Your task to perform on an android device: turn off improve location accuracy Image 0: 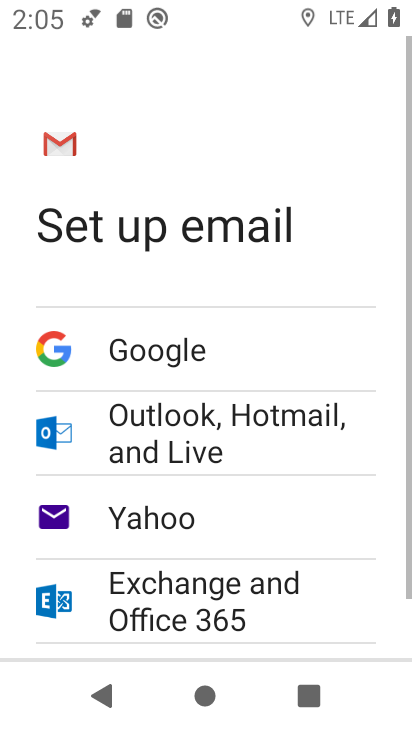
Step 0: press home button
Your task to perform on an android device: turn off improve location accuracy Image 1: 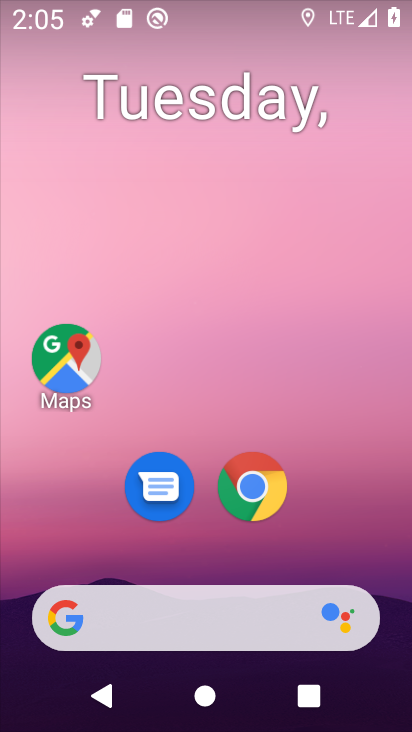
Step 1: drag from (361, 550) to (376, 95)
Your task to perform on an android device: turn off improve location accuracy Image 2: 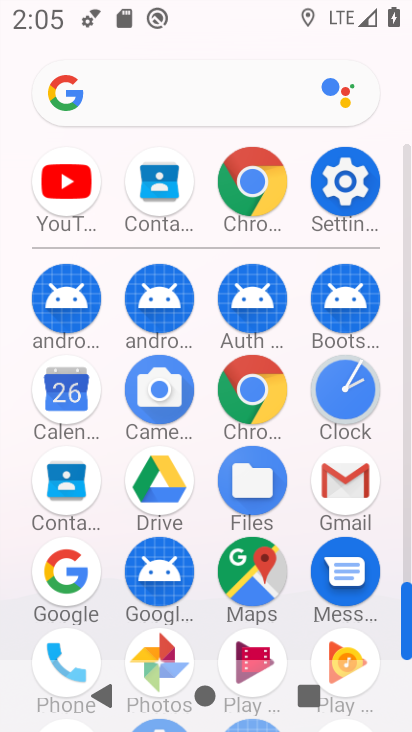
Step 2: click (369, 176)
Your task to perform on an android device: turn off improve location accuracy Image 3: 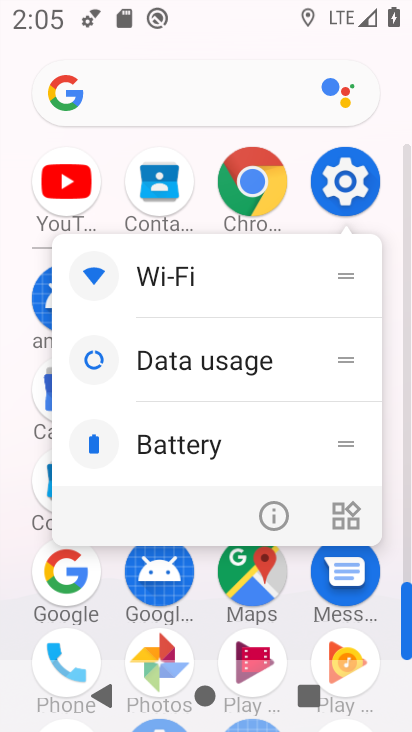
Step 3: click (369, 176)
Your task to perform on an android device: turn off improve location accuracy Image 4: 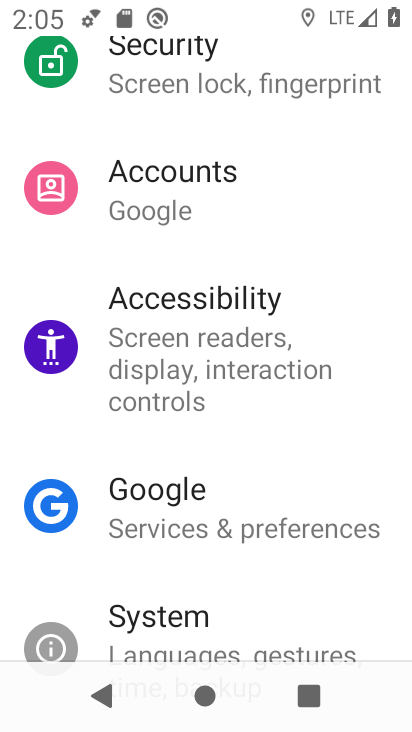
Step 4: drag from (345, 235) to (352, 343)
Your task to perform on an android device: turn off improve location accuracy Image 5: 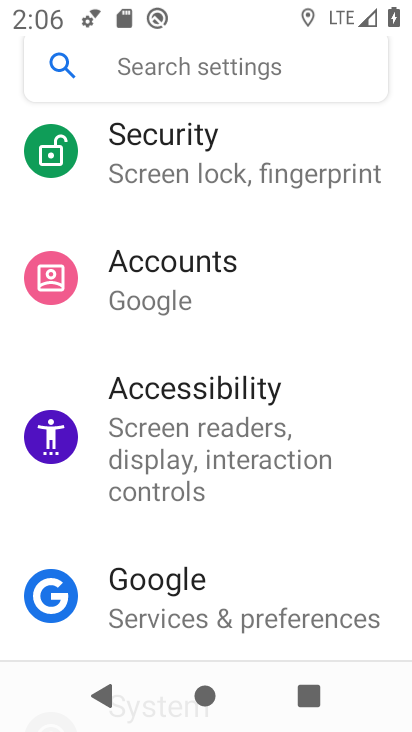
Step 5: drag from (352, 259) to (362, 339)
Your task to perform on an android device: turn off improve location accuracy Image 6: 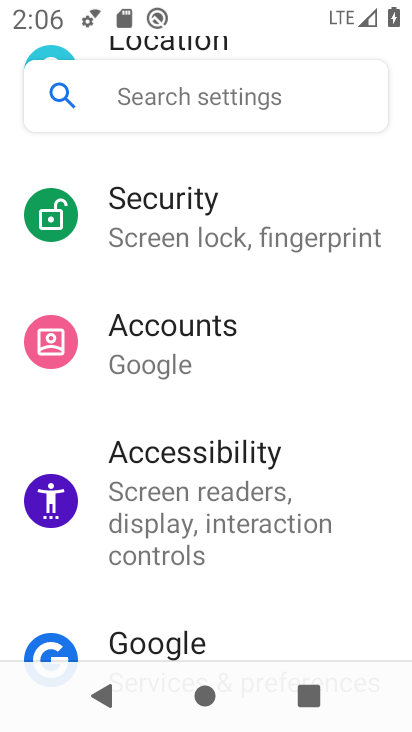
Step 6: drag from (362, 275) to (372, 348)
Your task to perform on an android device: turn off improve location accuracy Image 7: 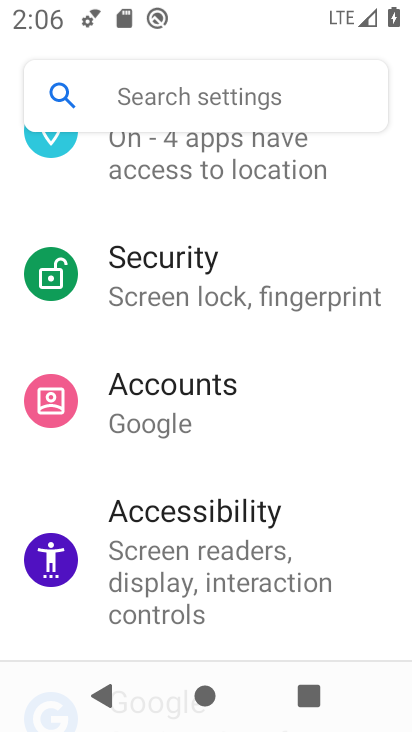
Step 7: drag from (372, 233) to (376, 340)
Your task to perform on an android device: turn off improve location accuracy Image 8: 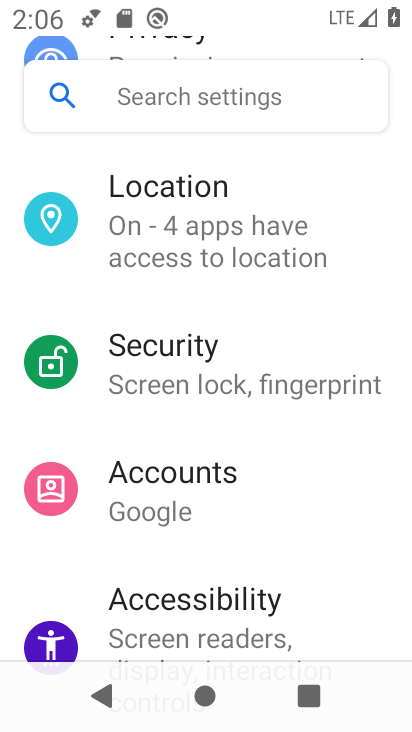
Step 8: drag from (366, 214) to (372, 323)
Your task to perform on an android device: turn off improve location accuracy Image 9: 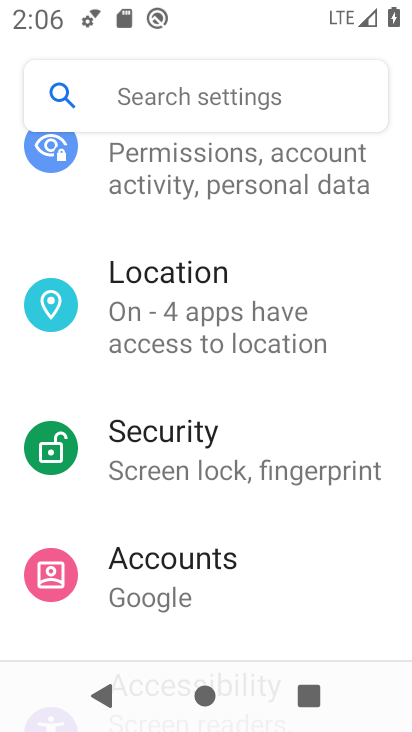
Step 9: drag from (372, 216) to (373, 353)
Your task to perform on an android device: turn off improve location accuracy Image 10: 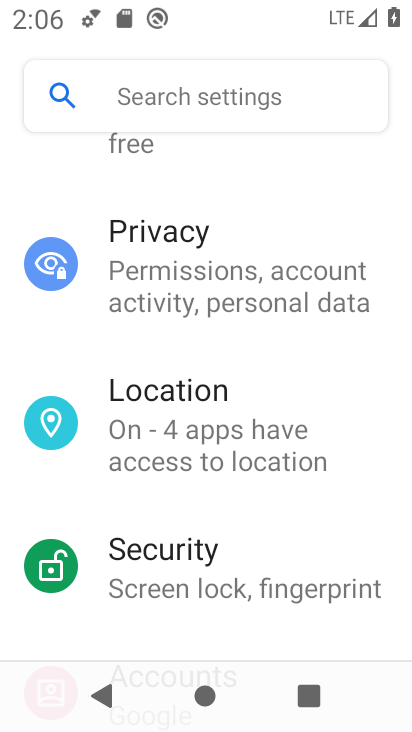
Step 10: drag from (367, 199) to (364, 313)
Your task to perform on an android device: turn off improve location accuracy Image 11: 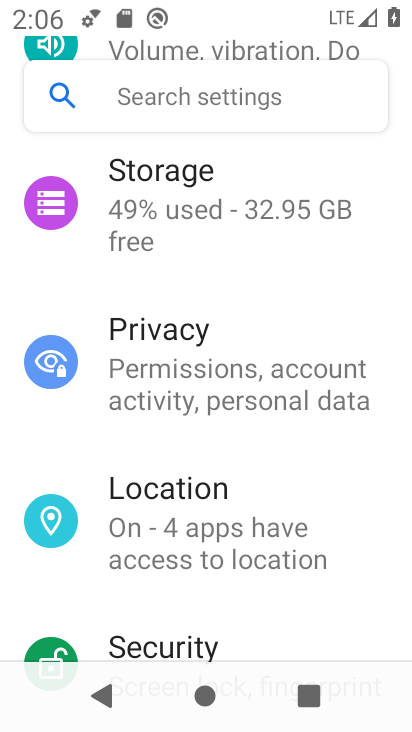
Step 11: click (322, 537)
Your task to perform on an android device: turn off improve location accuracy Image 12: 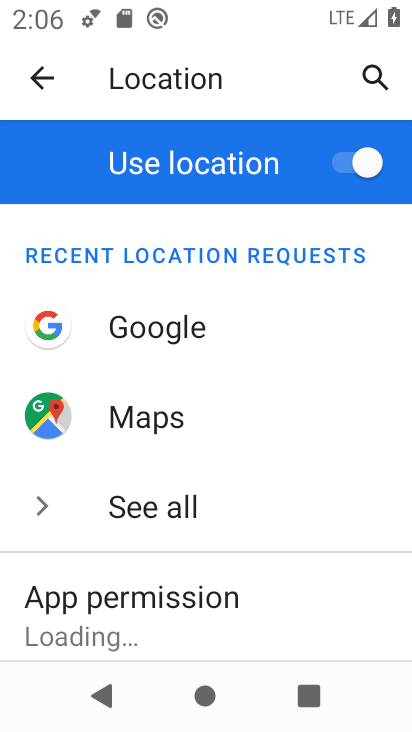
Step 12: drag from (333, 569) to (357, 435)
Your task to perform on an android device: turn off improve location accuracy Image 13: 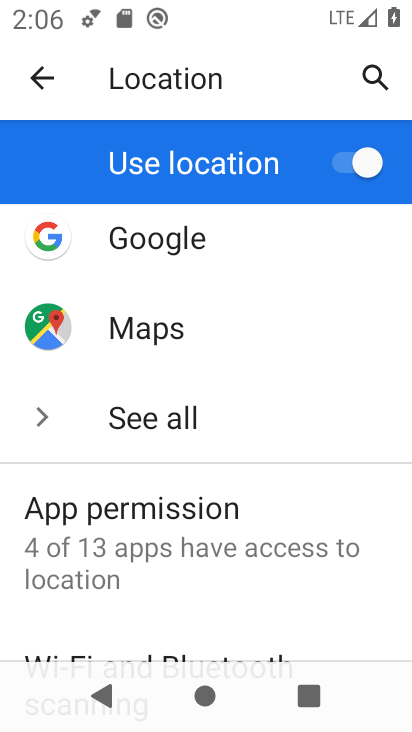
Step 13: drag from (346, 593) to (346, 445)
Your task to perform on an android device: turn off improve location accuracy Image 14: 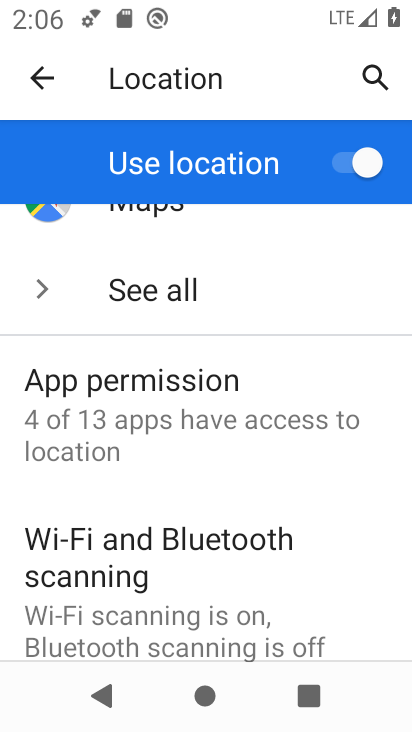
Step 14: drag from (339, 572) to (342, 474)
Your task to perform on an android device: turn off improve location accuracy Image 15: 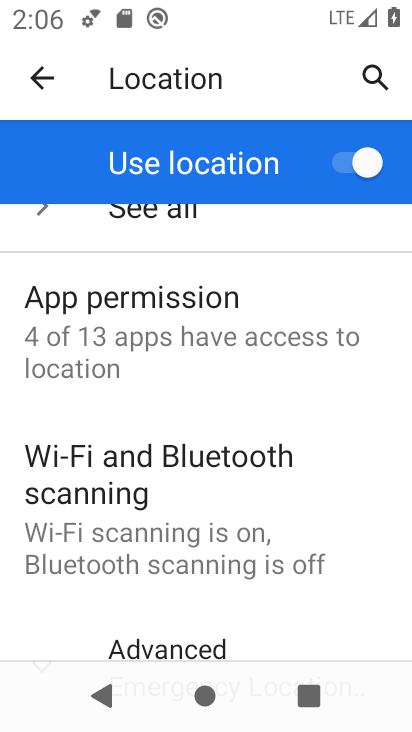
Step 15: drag from (313, 598) to (322, 501)
Your task to perform on an android device: turn off improve location accuracy Image 16: 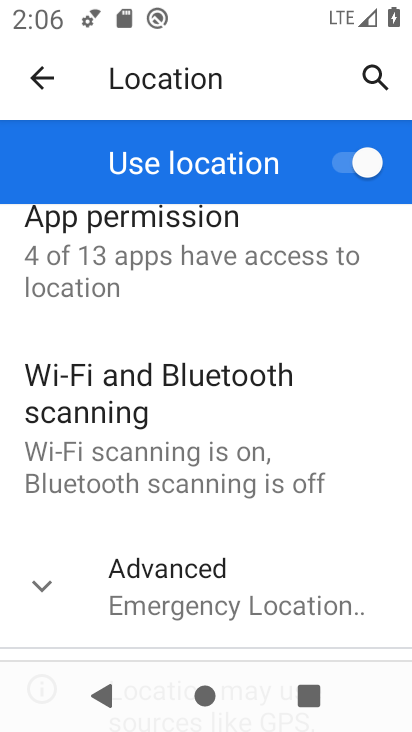
Step 16: click (304, 588)
Your task to perform on an android device: turn off improve location accuracy Image 17: 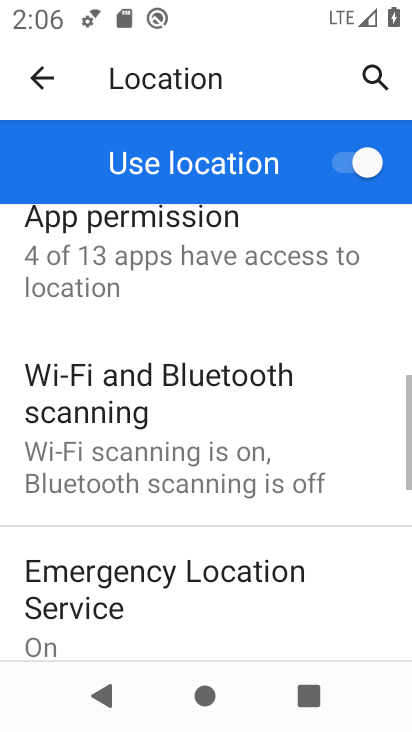
Step 17: drag from (305, 587) to (319, 488)
Your task to perform on an android device: turn off improve location accuracy Image 18: 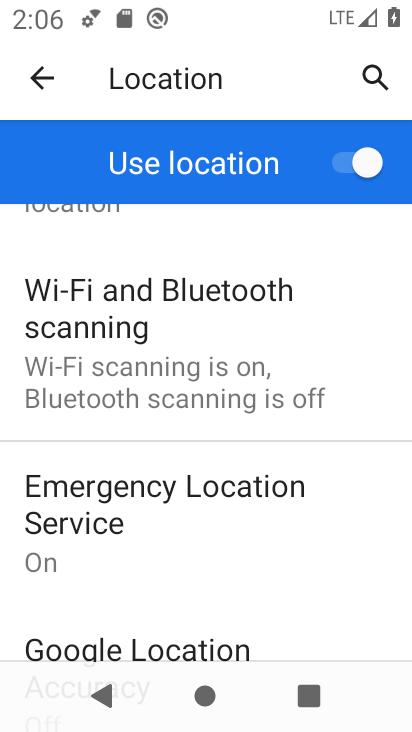
Step 18: drag from (307, 593) to (317, 492)
Your task to perform on an android device: turn off improve location accuracy Image 19: 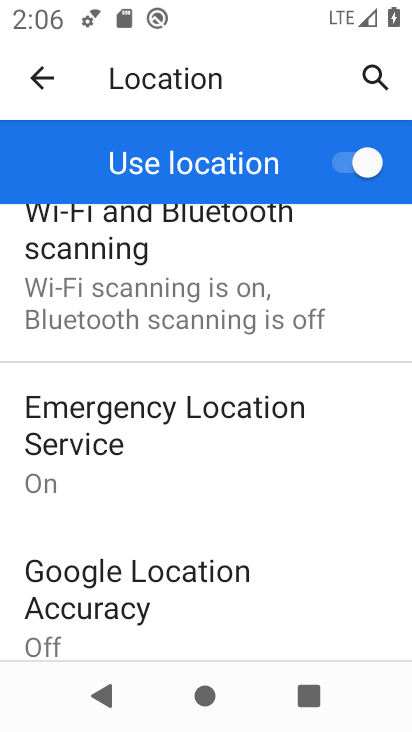
Step 19: drag from (315, 563) to (327, 460)
Your task to perform on an android device: turn off improve location accuracy Image 20: 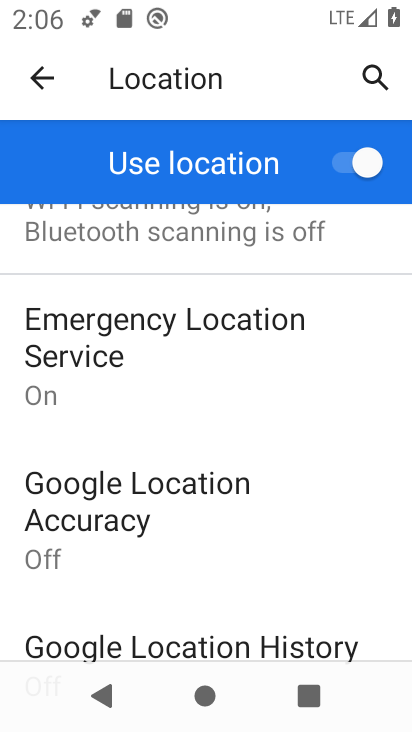
Step 20: click (226, 508)
Your task to perform on an android device: turn off improve location accuracy Image 21: 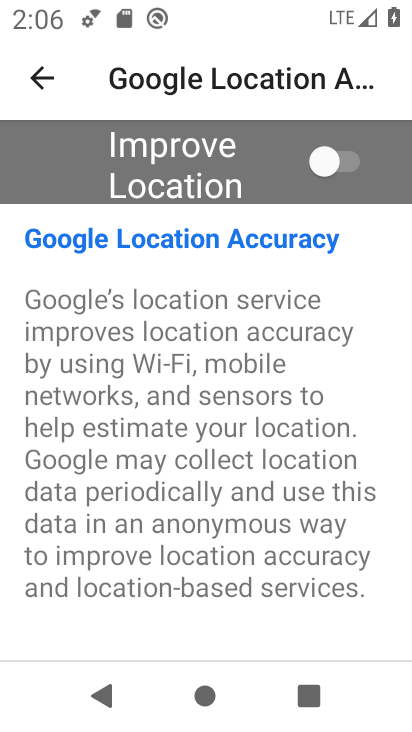
Step 21: task complete